Your task to perform on an android device: Is it going to rain this weekend? Image 0: 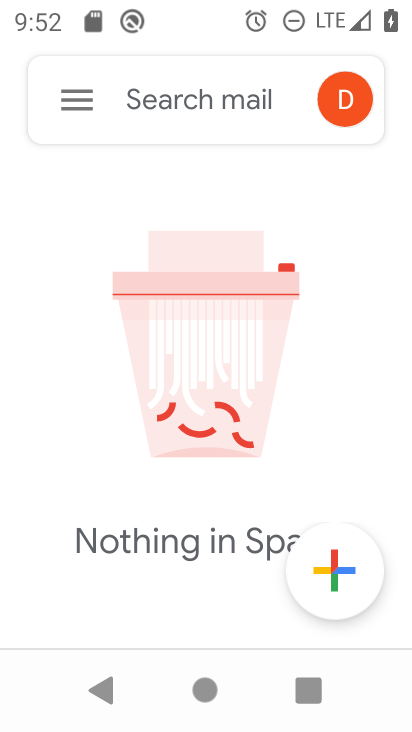
Step 0: press home button
Your task to perform on an android device: Is it going to rain this weekend? Image 1: 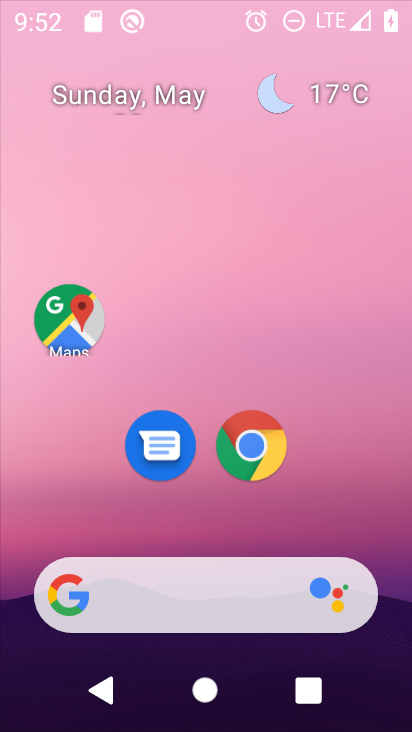
Step 1: drag from (134, 580) to (144, 55)
Your task to perform on an android device: Is it going to rain this weekend? Image 2: 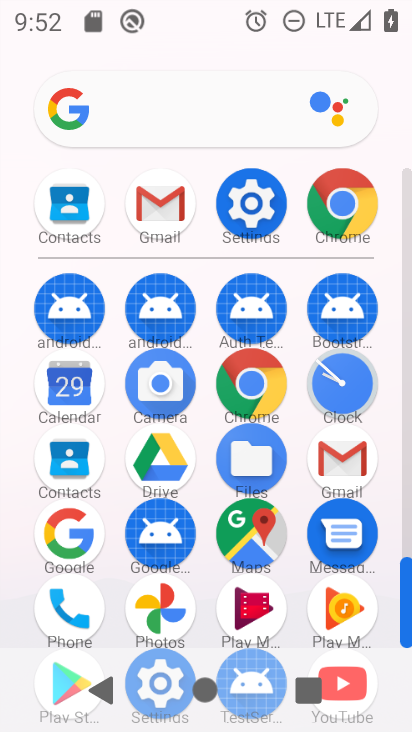
Step 2: click (61, 409)
Your task to perform on an android device: Is it going to rain this weekend? Image 3: 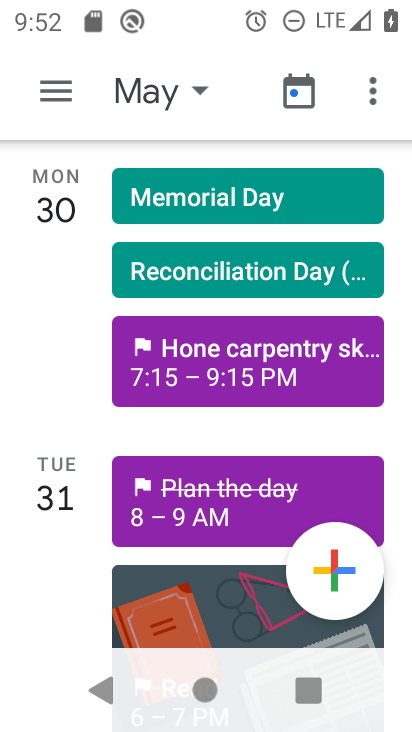
Step 3: click (183, 97)
Your task to perform on an android device: Is it going to rain this weekend? Image 4: 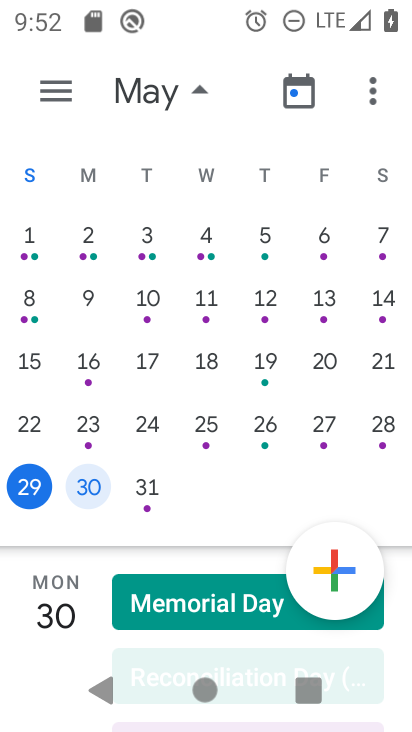
Step 4: click (169, 95)
Your task to perform on an android device: Is it going to rain this weekend? Image 5: 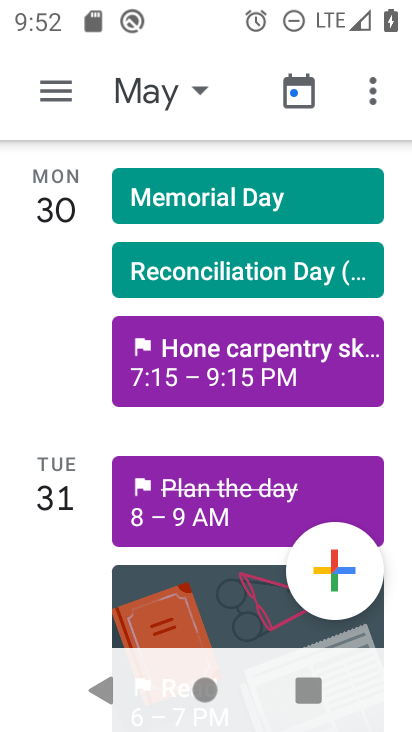
Step 5: press home button
Your task to perform on an android device: Is it going to rain this weekend? Image 6: 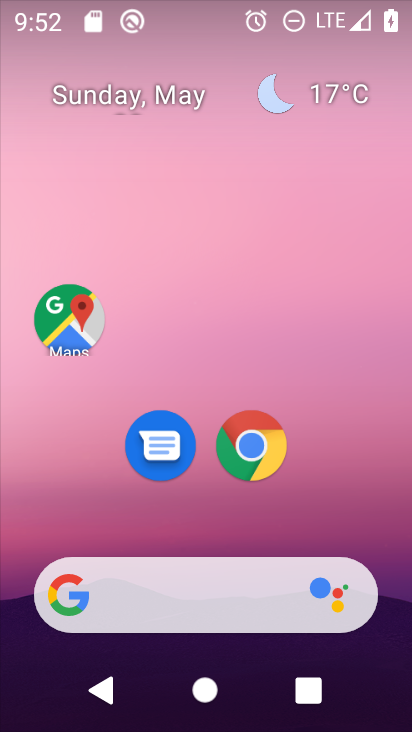
Step 6: drag from (190, 531) to (195, 91)
Your task to perform on an android device: Is it going to rain this weekend? Image 7: 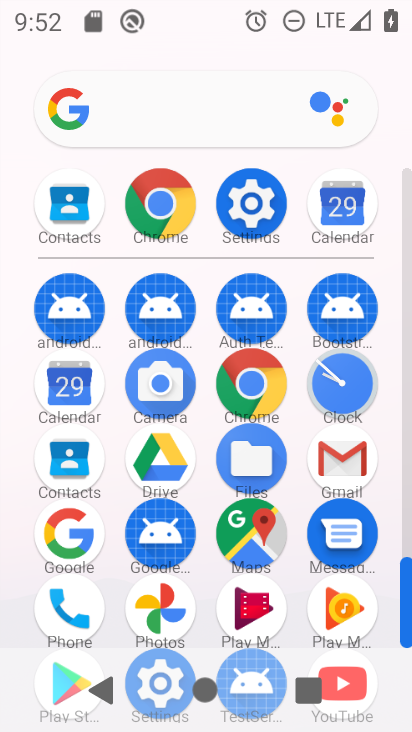
Step 7: click (160, 121)
Your task to perform on an android device: Is it going to rain this weekend? Image 8: 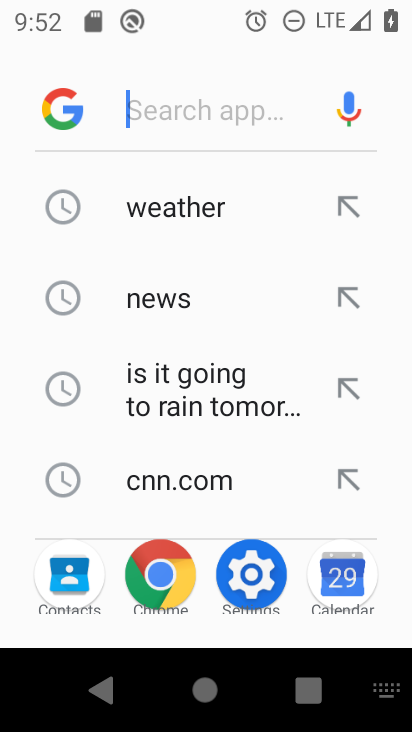
Step 8: type "rain this weekend?"
Your task to perform on an android device: Is it going to rain this weekend? Image 9: 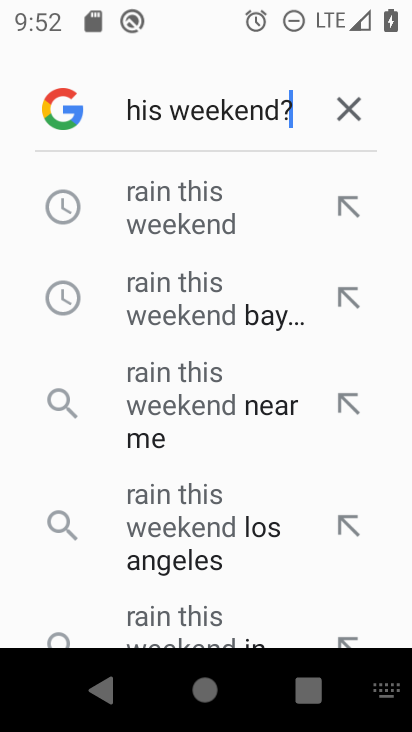
Step 9: type ""
Your task to perform on an android device: Is it going to rain this weekend? Image 10: 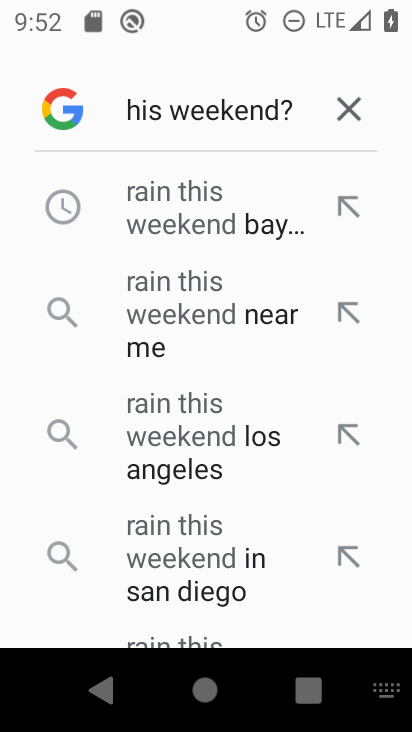
Step 10: click (213, 216)
Your task to perform on an android device: Is it going to rain this weekend? Image 11: 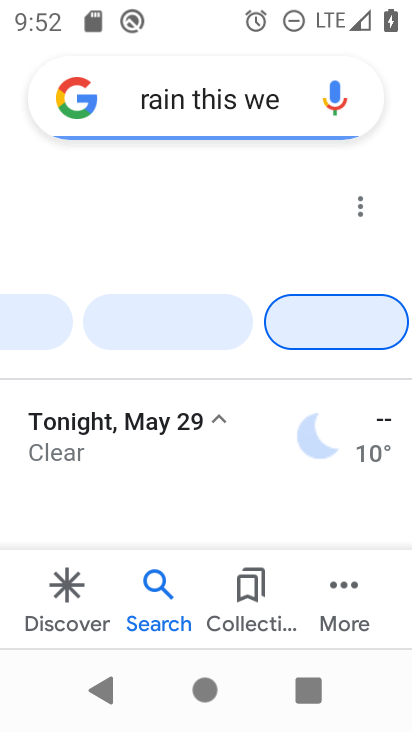
Step 11: task complete